Your task to perform on an android device: turn on location history Image 0: 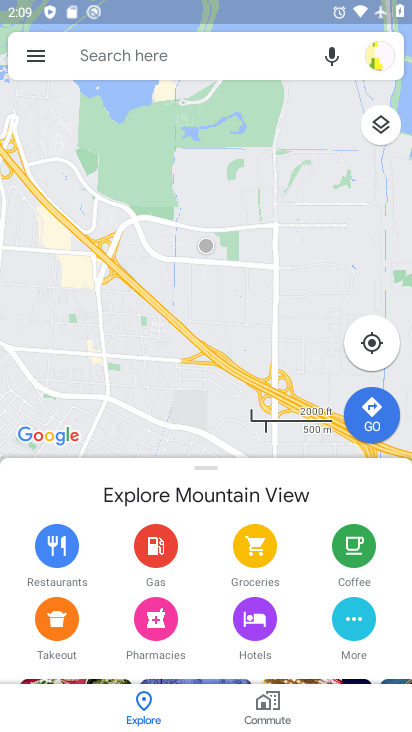
Step 0: press home button
Your task to perform on an android device: turn on location history Image 1: 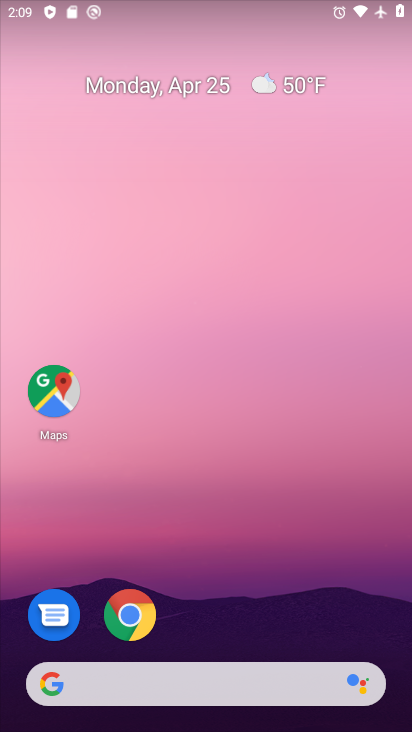
Step 1: drag from (242, 532) to (253, 163)
Your task to perform on an android device: turn on location history Image 2: 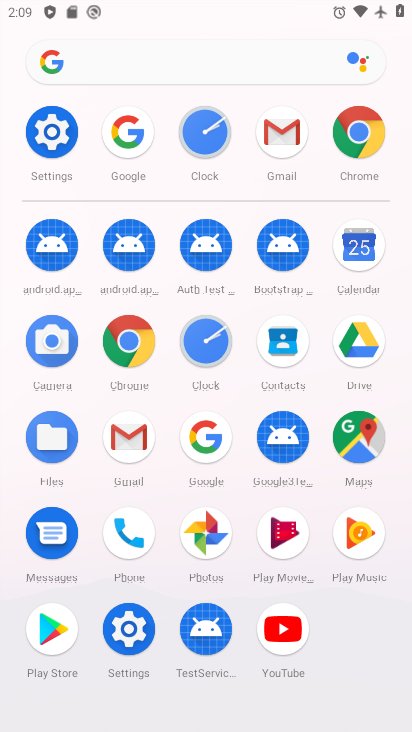
Step 2: click (48, 132)
Your task to perform on an android device: turn on location history Image 3: 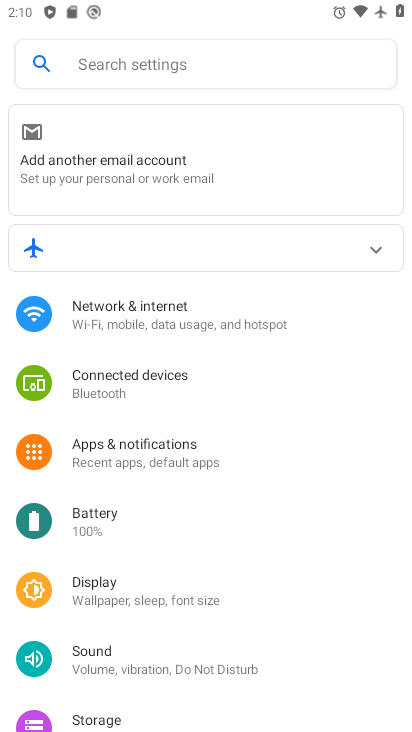
Step 3: drag from (166, 522) to (218, 309)
Your task to perform on an android device: turn on location history Image 4: 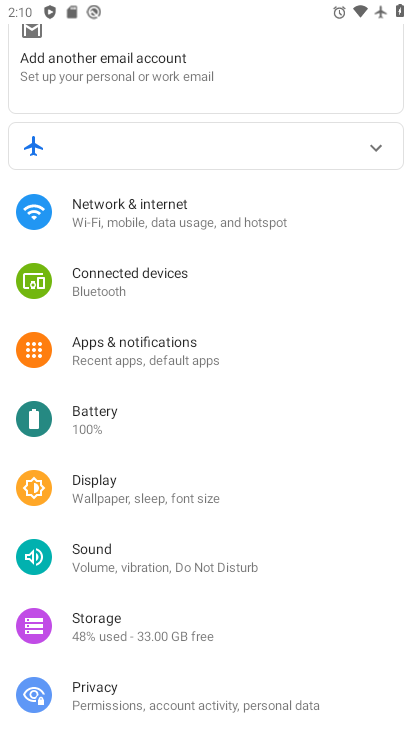
Step 4: drag from (157, 660) to (207, 422)
Your task to perform on an android device: turn on location history Image 5: 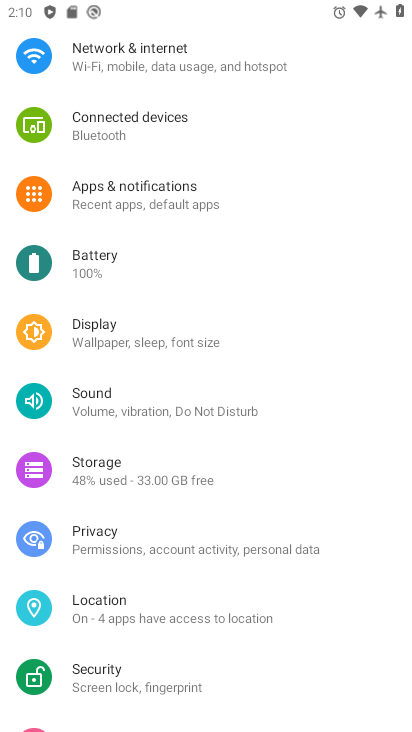
Step 5: click (154, 617)
Your task to perform on an android device: turn on location history Image 6: 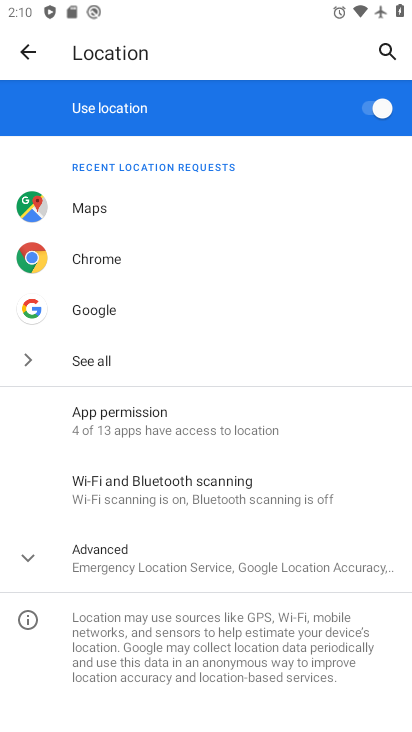
Step 6: click (156, 555)
Your task to perform on an android device: turn on location history Image 7: 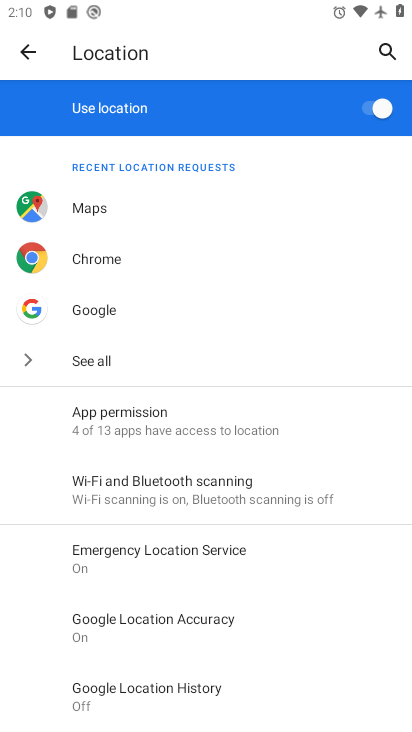
Step 7: click (172, 696)
Your task to perform on an android device: turn on location history Image 8: 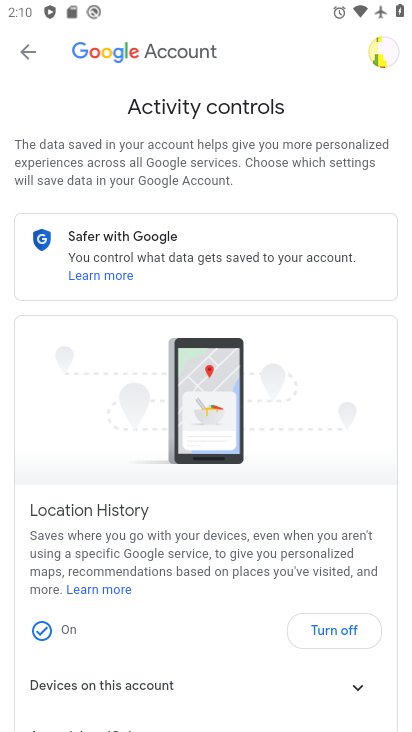
Step 8: click (353, 624)
Your task to perform on an android device: turn on location history Image 9: 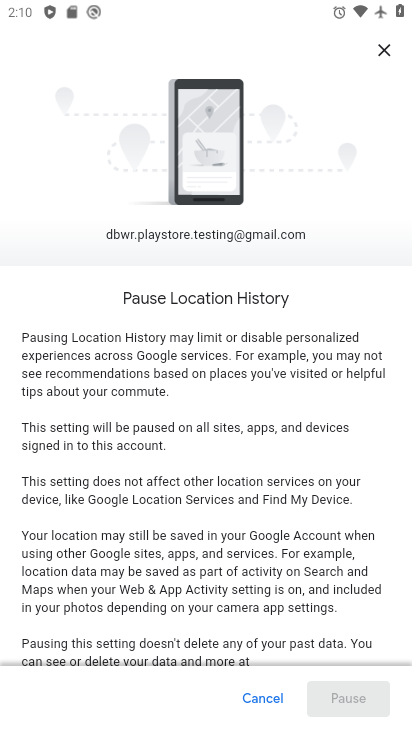
Step 9: drag from (317, 604) to (340, 355)
Your task to perform on an android device: turn on location history Image 10: 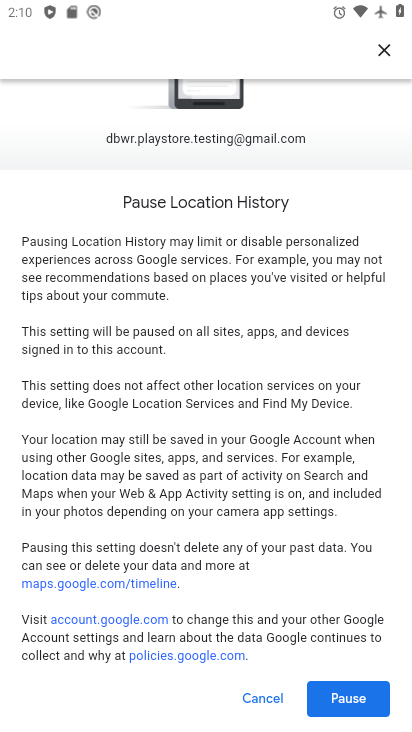
Step 10: drag from (234, 473) to (273, 255)
Your task to perform on an android device: turn on location history Image 11: 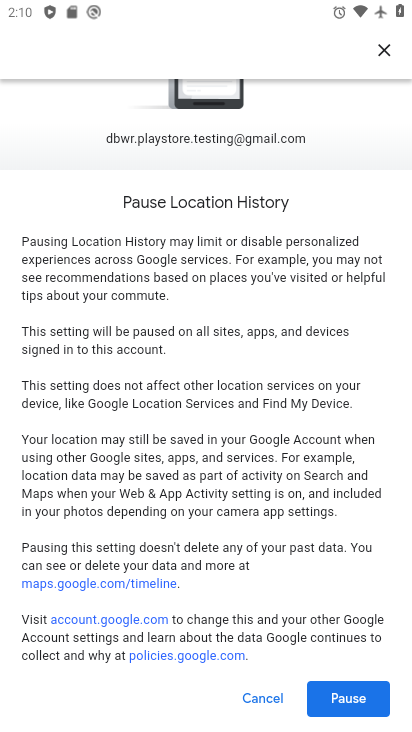
Step 11: click (344, 689)
Your task to perform on an android device: turn on location history Image 12: 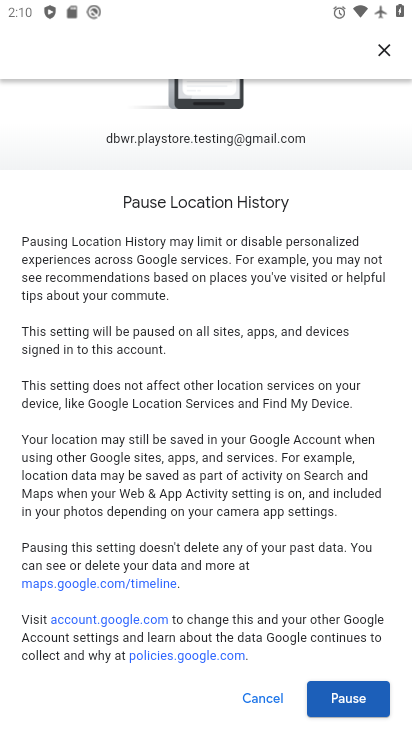
Step 12: click (345, 703)
Your task to perform on an android device: turn on location history Image 13: 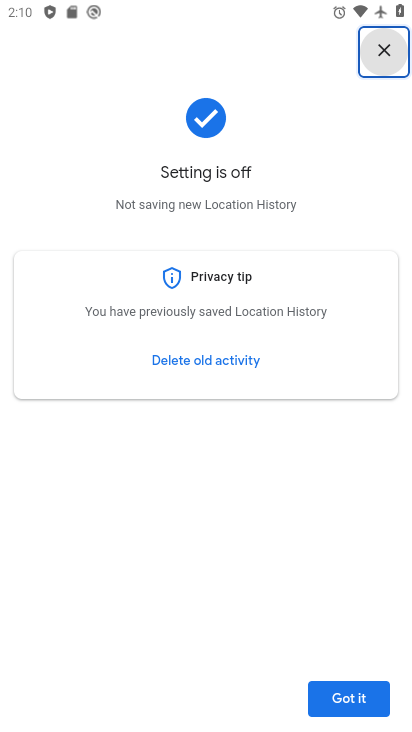
Step 13: click (330, 557)
Your task to perform on an android device: turn on location history Image 14: 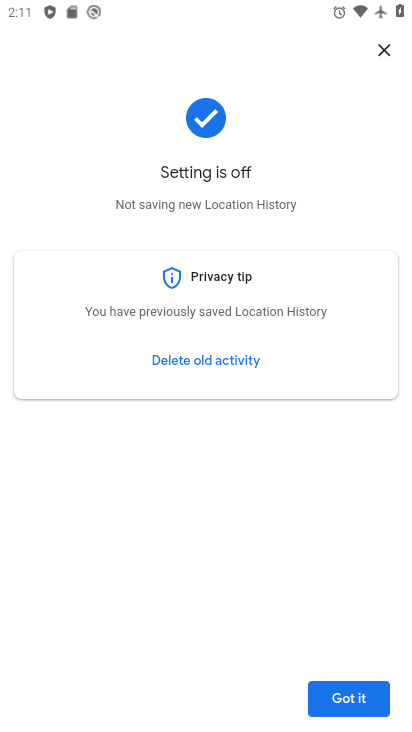
Step 14: click (332, 704)
Your task to perform on an android device: turn on location history Image 15: 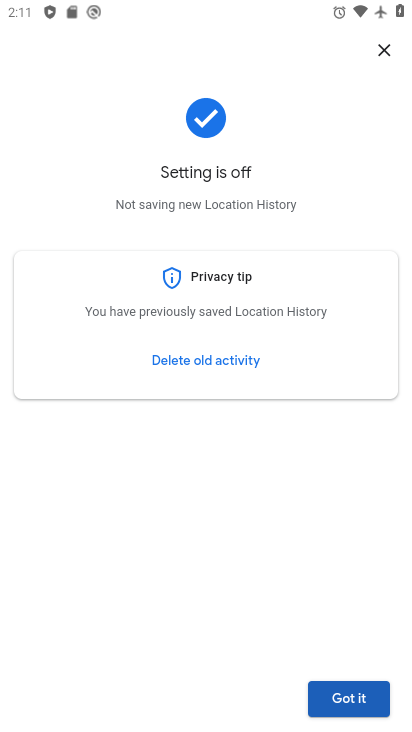
Step 15: click (332, 703)
Your task to perform on an android device: turn on location history Image 16: 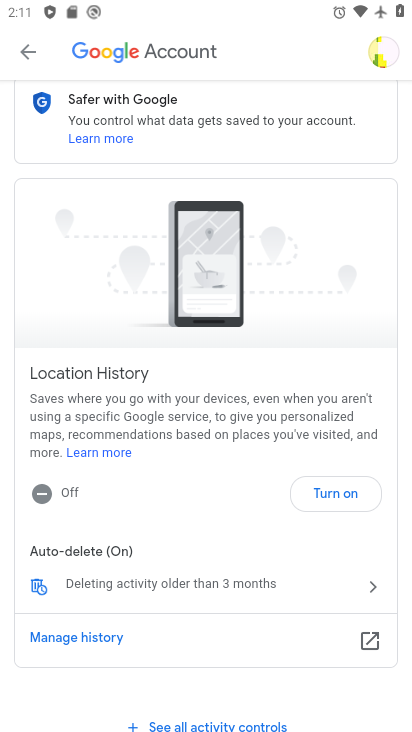
Step 16: task complete